Your task to perform on an android device: turn on showing notifications on the lock screen Image 0: 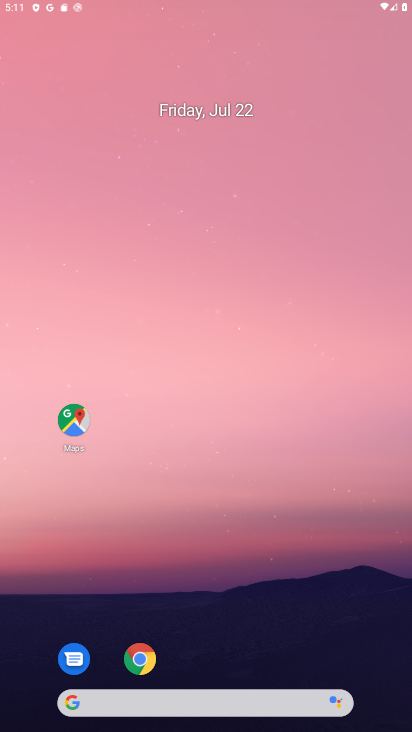
Step 0: press home button
Your task to perform on an android device: turn on showing notifications on the lock screen Image 1: 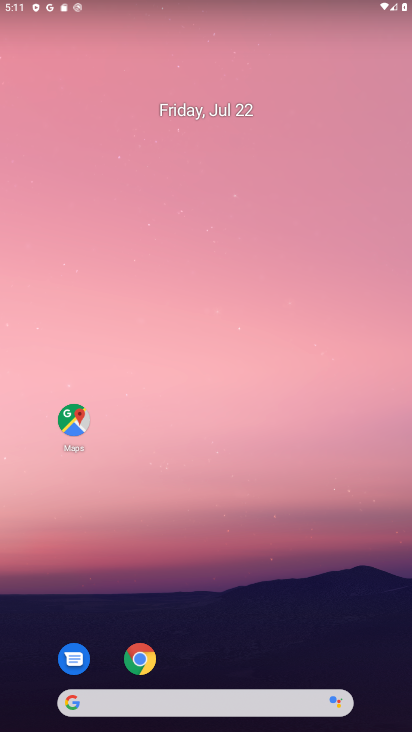
Step 1: drag from (218, 661) to (234, 79)
Your task to perform on an android device: turn on showing notifications on the lock screen Image 2: 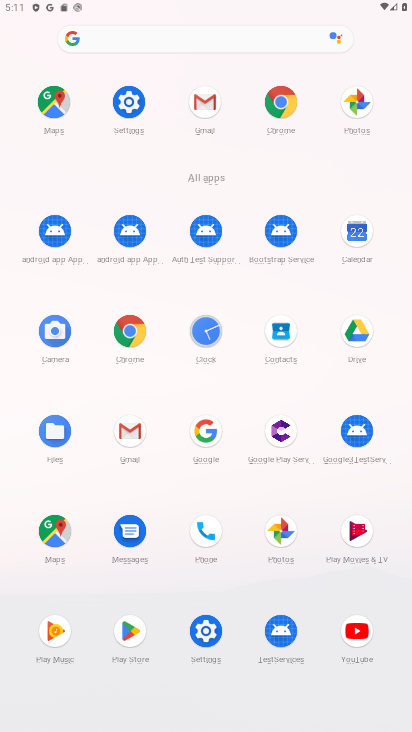
Step 2: click (119, 99)
Your task to perform on an android device: turn on showing notifications on the lock screen Image 3: 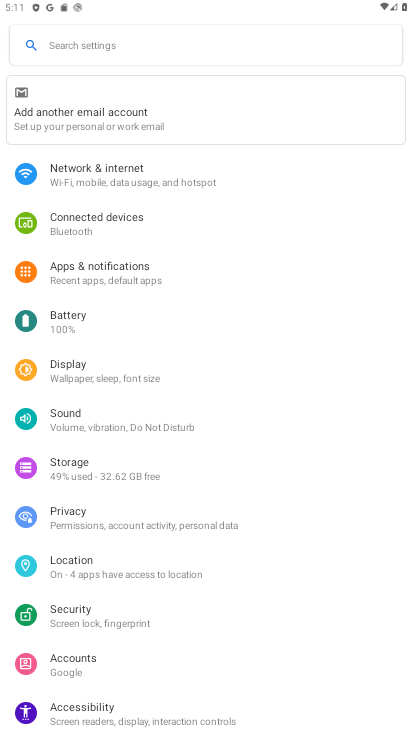
Step 3: click (126, 268)
Your task to perform on an android device: turn on showing notifications on the lock screen Image 4: 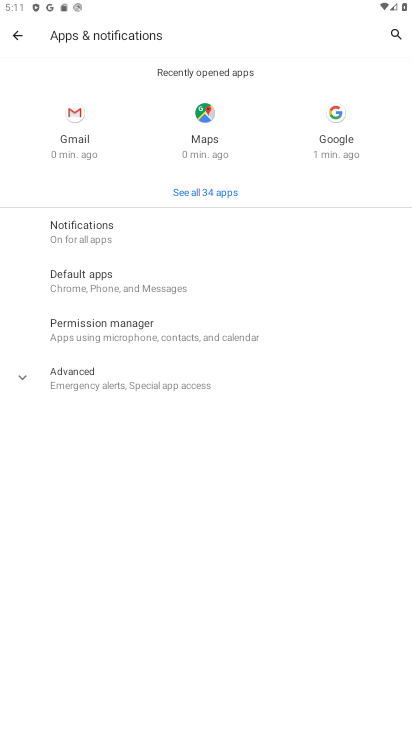
Step 4: click (100, 227)
Your task to perform on an android device: turn on showing notifications on the lock screen Image 5: 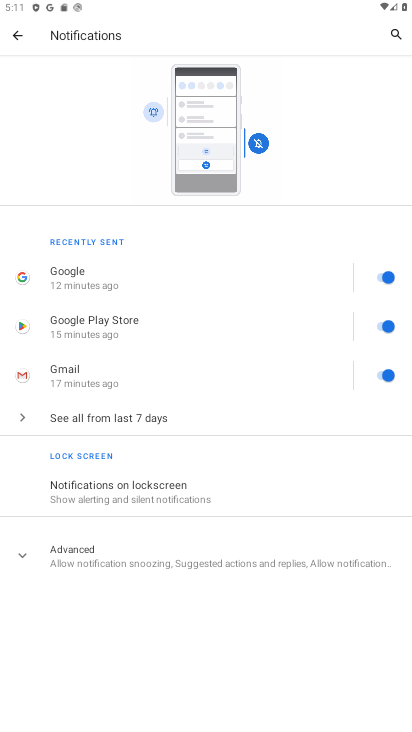
Step 5: click (140, 490)
Your task to perform on an android device: turn on showing notifications on the lock screen Image 6: 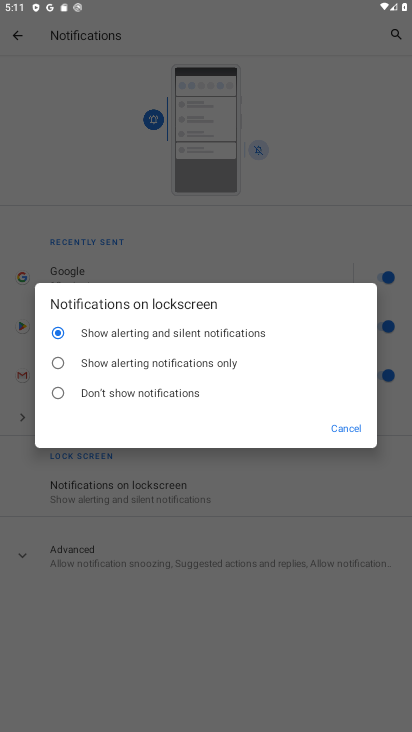
Step 6: click (55, 360)
Your task to perform on an android device: turn on showing notifications on the lock screen Image 7: 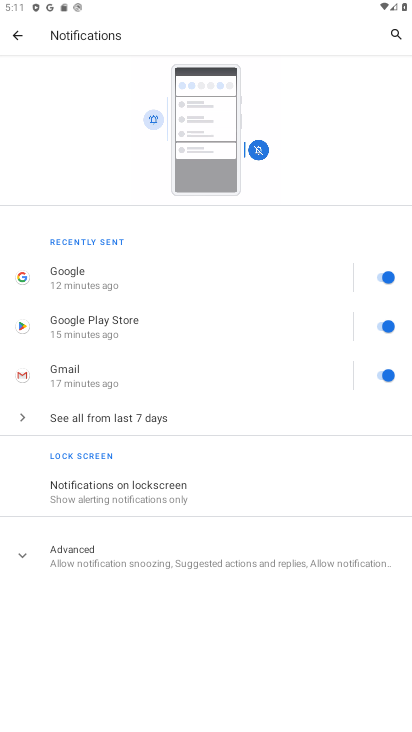
Step 7: task complete